Your task to perform on an android device: change text size in settings app Image 0: 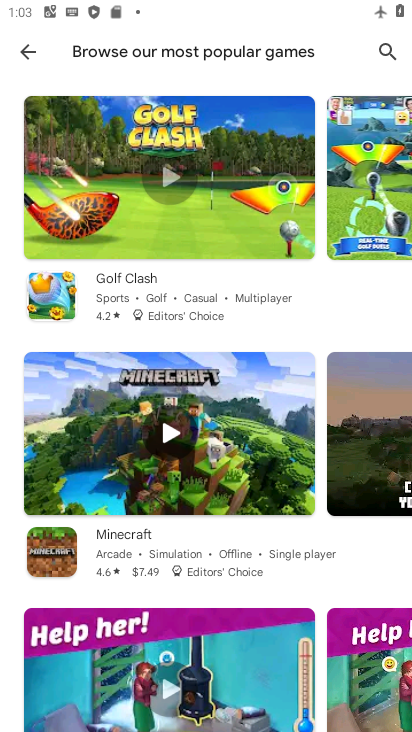
Step 0: press home button
Your task to perform on an android device: change text size in settings app Image 1: 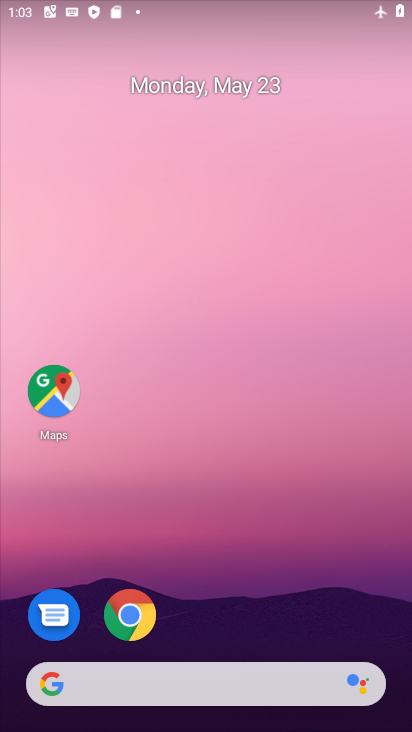
Step 1: drag from (215, 712) to (215, 56)
Your task to perform on an android device: change text size in settings app Image 2: 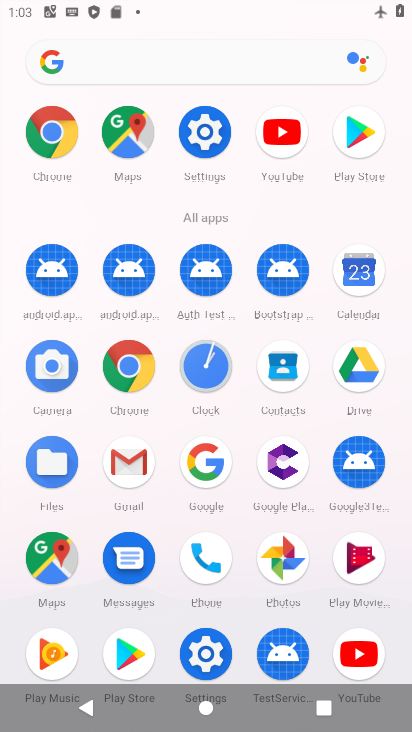
Step 2: click (201, 137)
Your task to perform on an android device: change text size in settings app Image 3: 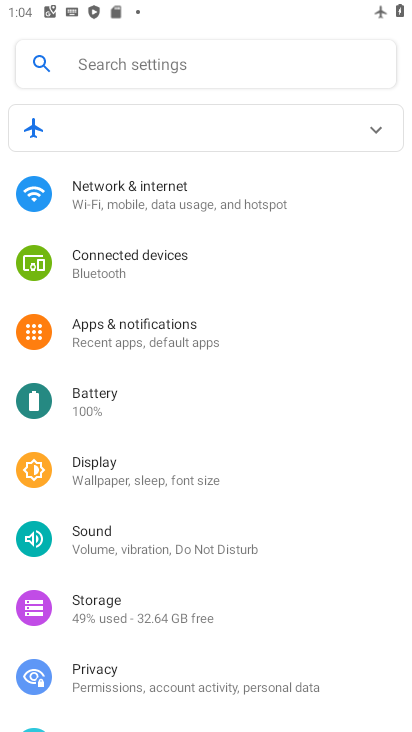
Step 3: click (147, 481)
Your task to perform on an android device: change text size in settings app Image 4: 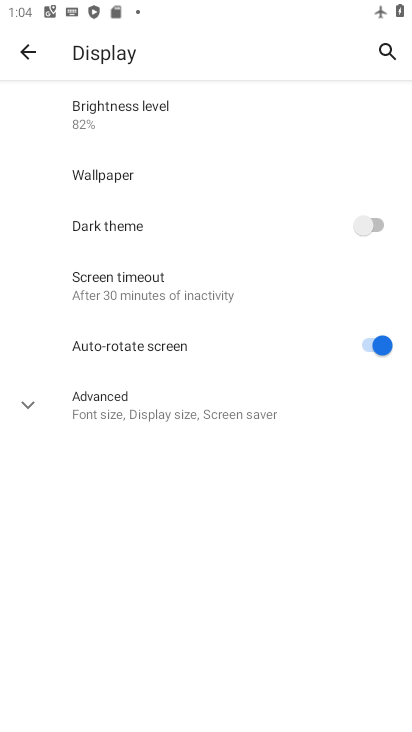
Step 4: click (114, 400)
Your task to perform on an android device: change text size in settings app Image 5: 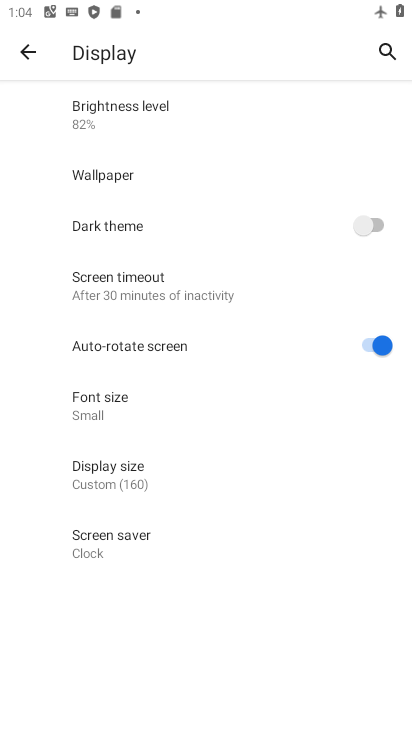
Step 5: click (102, 398)
Your task to perform on an android device: change text size in settings app Image 6: 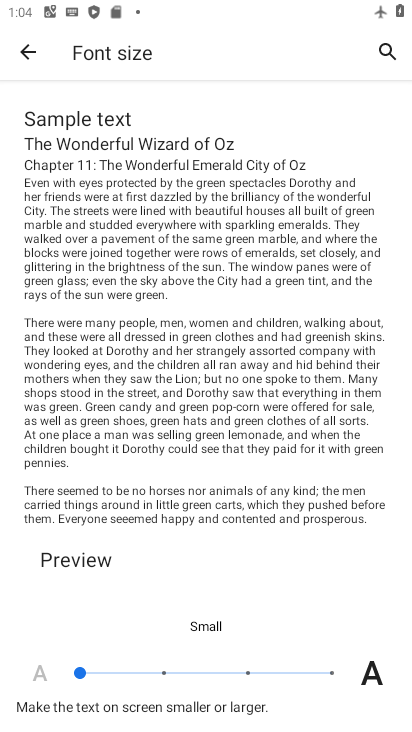
Step 6: click (166, 674)
Your task to perform on an android device: change text size in settings app Image 7: 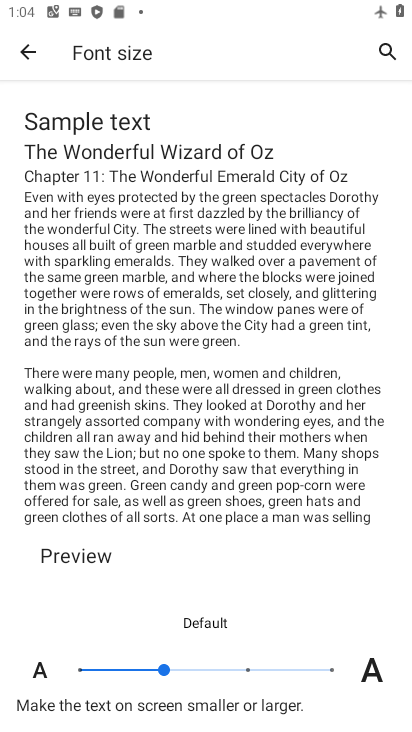
Step 7: task complete